Your task to perform on an android device: open app "Google News" Image 0: 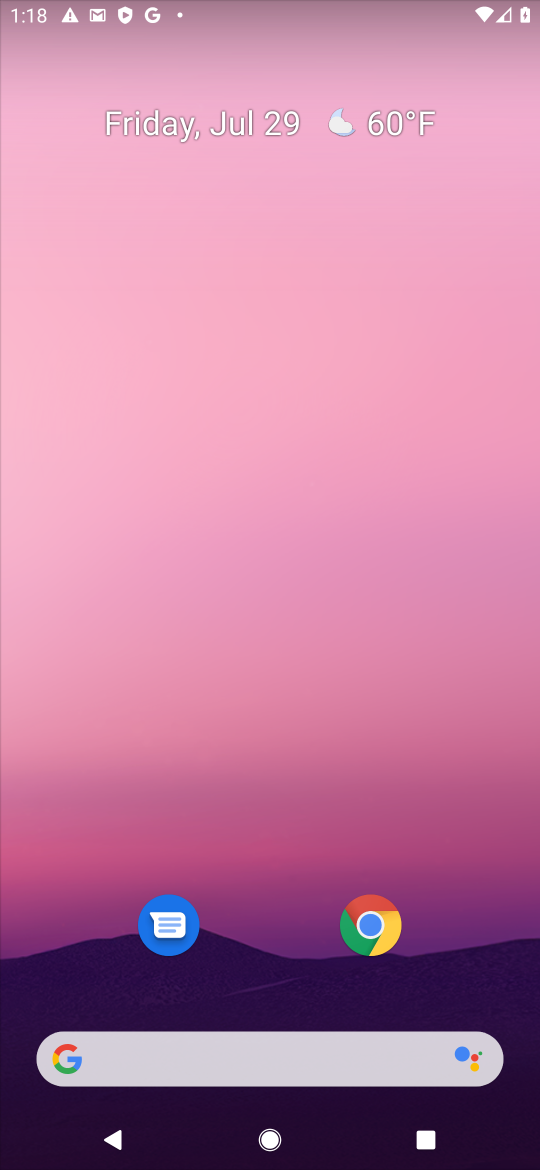
Step 0: drag from (426, 881) to (529, 0)
Your task to perform on an android device: open app "Google News" Image 1: 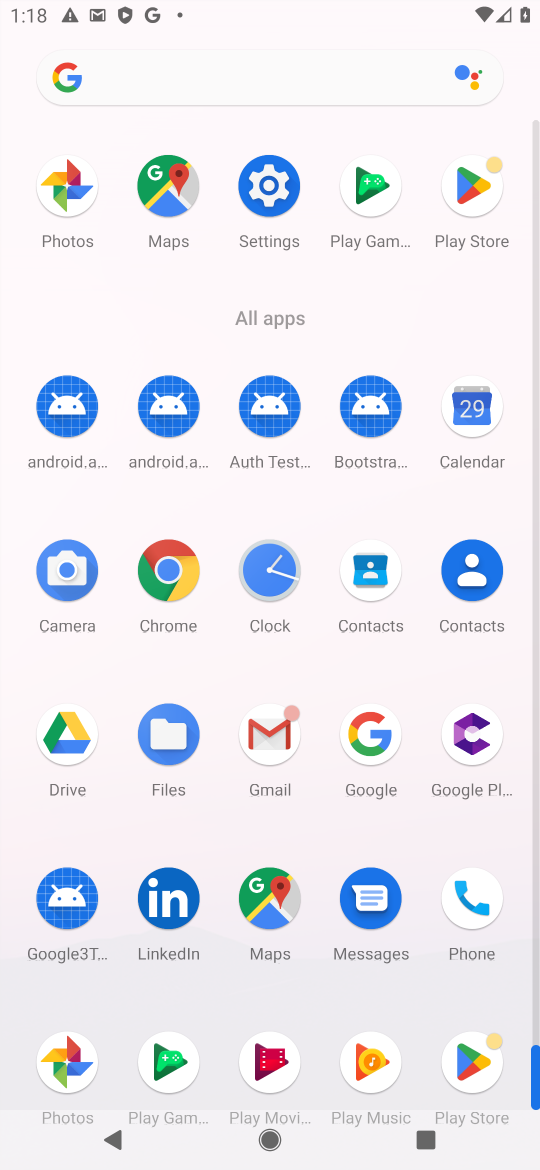
Step 1: click (488, 180)
Your task to perform on an android device: open app "Google News" Image 2: 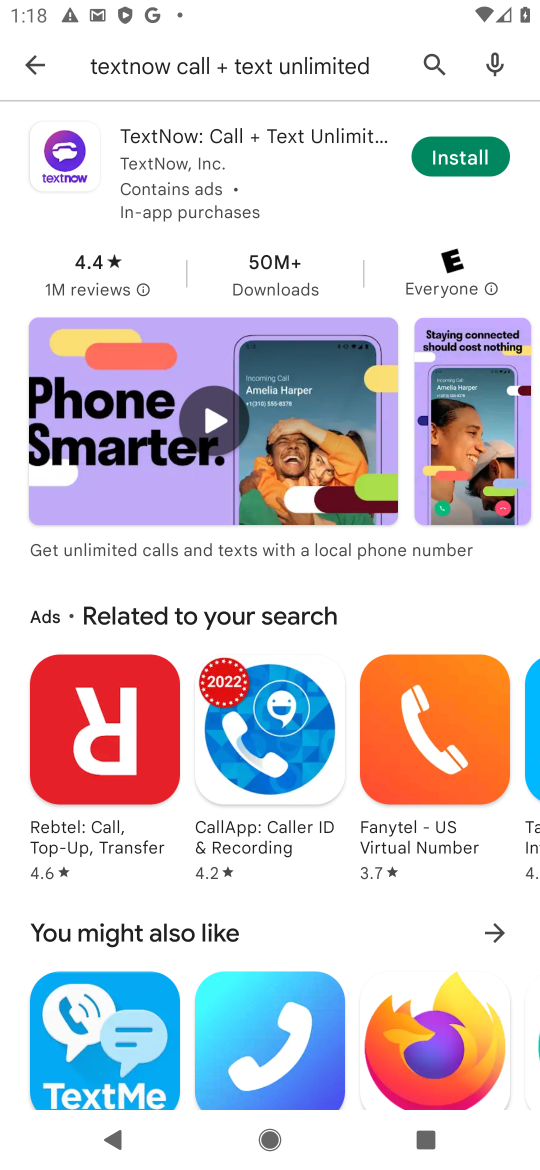
Step 2: click (431, 61)
Your task to perform on an android device: open app "Google News" Image 3: 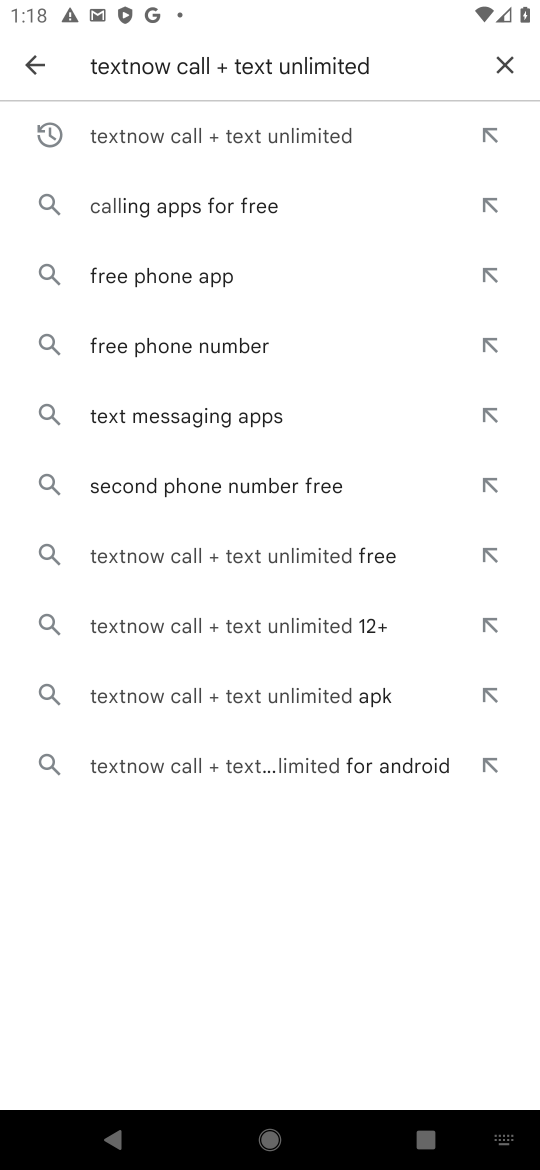
Step 3: click (508, 64)
Your task to perform on an android device: open app "Google News" Image 4: 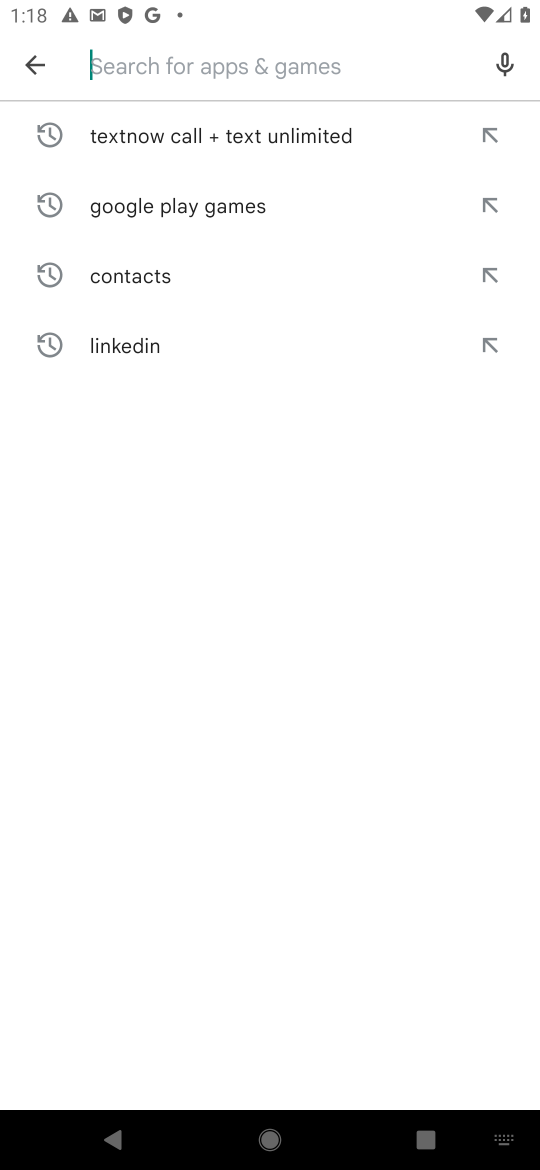
Step 4: type "google news"
Your task to perform on an android device: open app "Google News" Image 5: 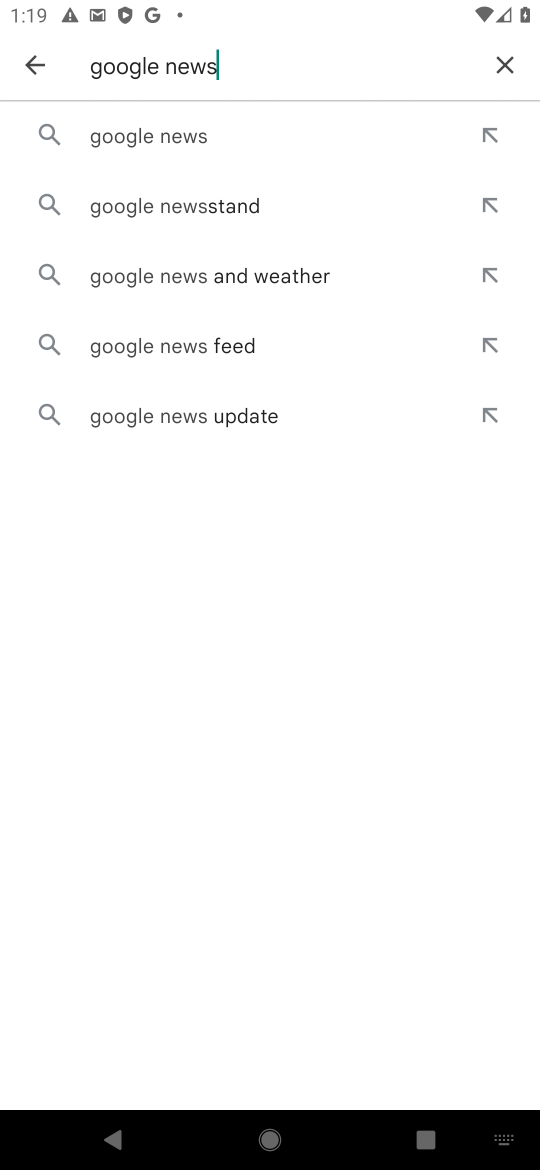
Step 5: click (286, 125)
Your task to perform on an android device: open app "Google News" Image 6: 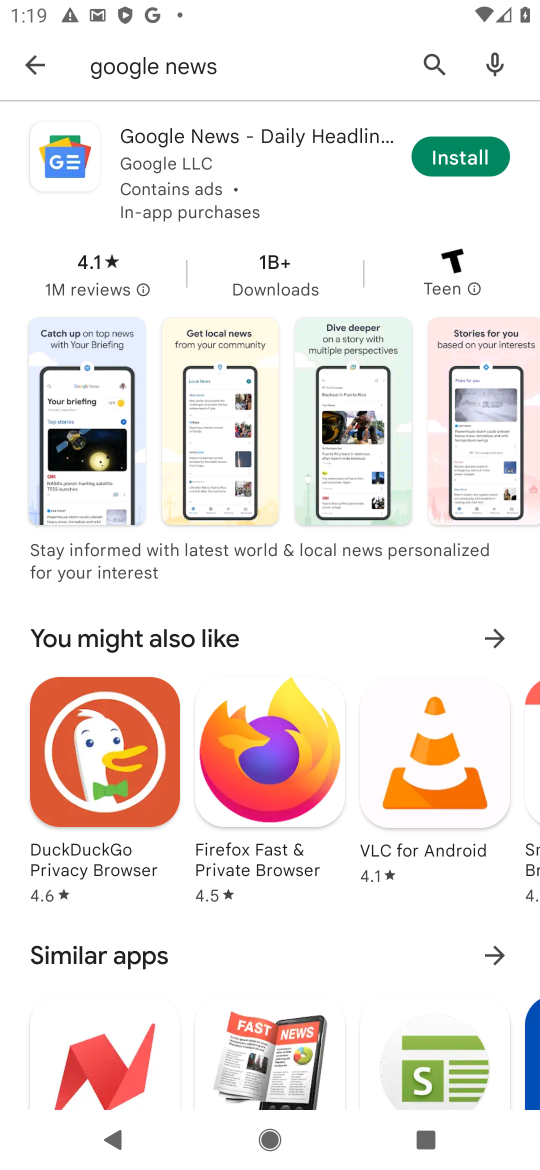
Step 6: task complete